Your task to perform on an android device: check data usage Image 0: 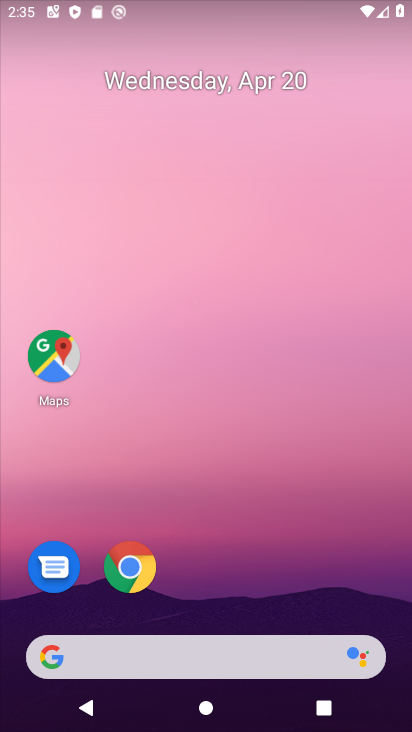
Step 0: drag from (221, 587) to (376, 12)
Your task to perform on an android device: check data usage Image 1: 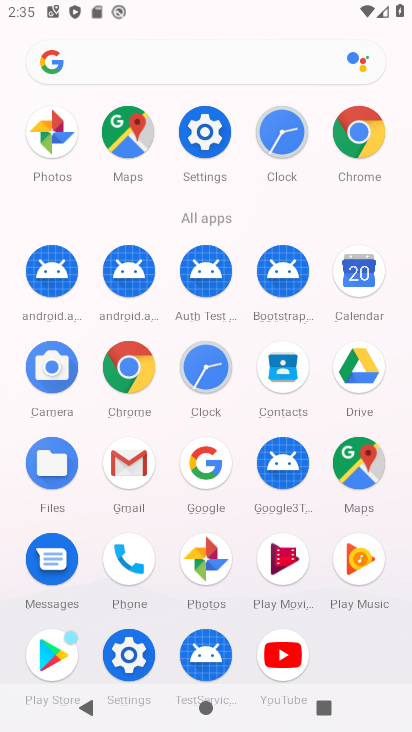
Step 1: click (134, 651)
Your task to perform on an android device: check data usage Image 2: 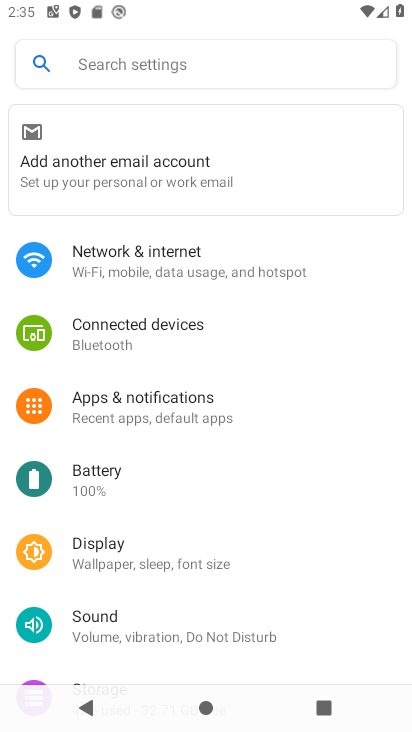
Step 2: click (153, 271)
Your task to perform on an android device: check data usage Image 3: 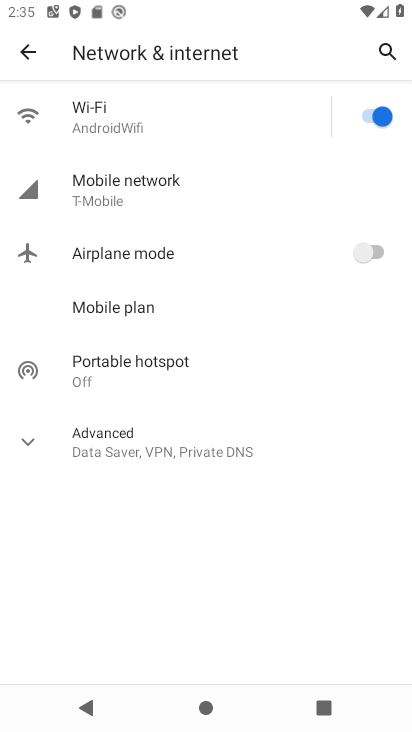
Step 3: click (134, 196)
Your task to perform on an android device: check data usage Image 4: 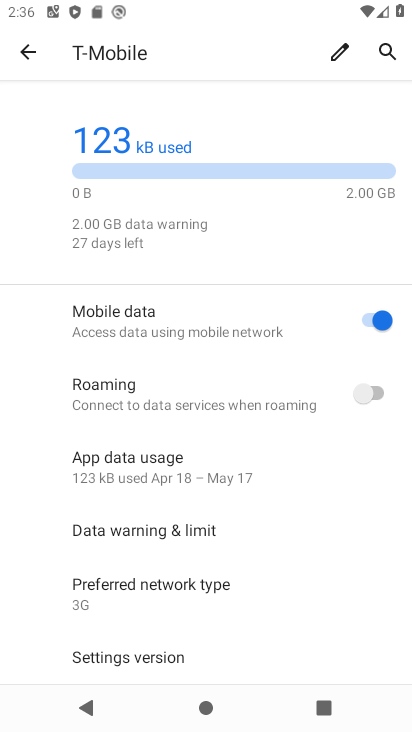
Step 4: click (144, 533)
Your task to perform on an android device: check data usage Image 5: 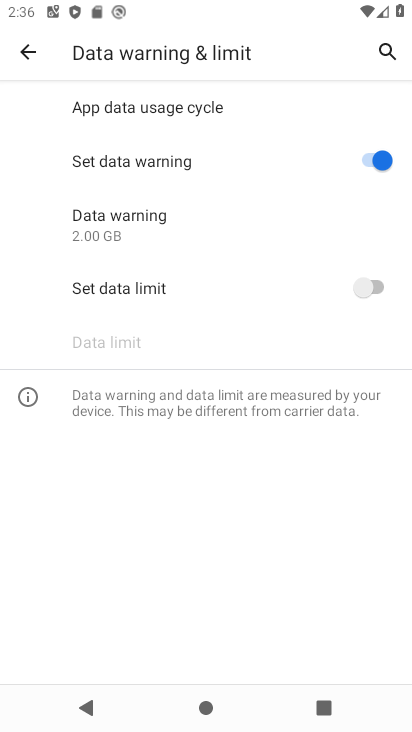
Step 5: click (38, 54)
Your task to perform on an android device: check data usage Image 6: 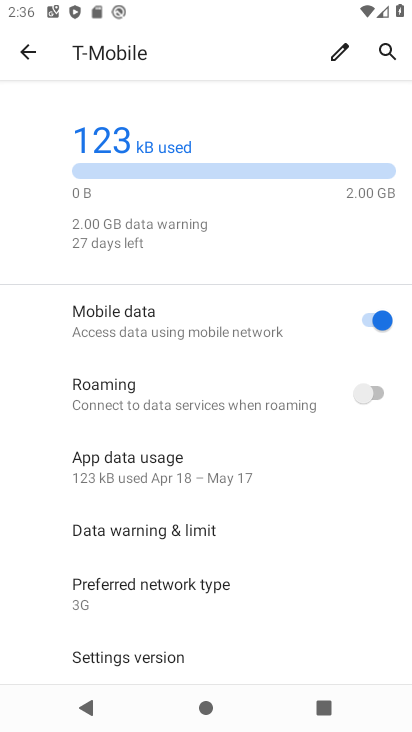
Step 6: click (162, 475)
Your task to perform on an android device: check data usage Image 7: 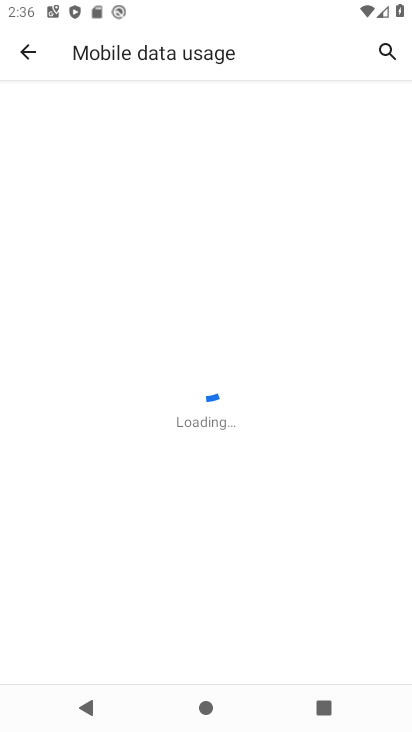
Step 7: task complete